Your task to perform on an android device: toggle notification dots Image 0: 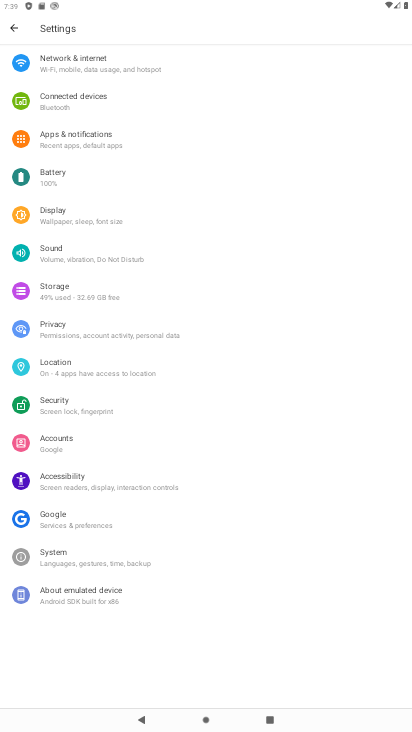
Step 0: click (79, 138)
Your task to perform on an android device: toggle notification dots Image 1: 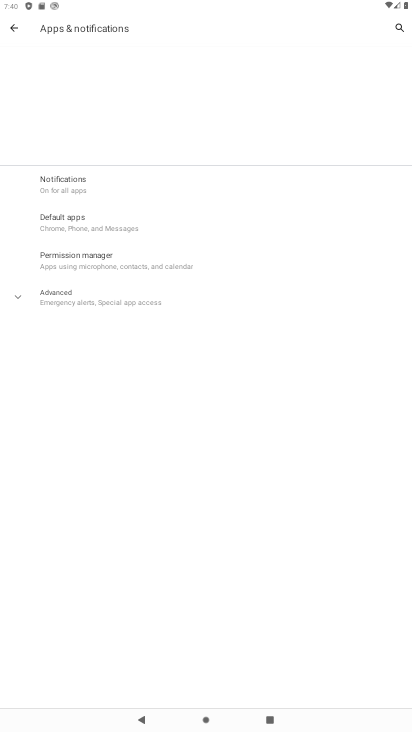
Step 1: click (68, 183)
Your task to perform on an android device: toggle notification dots Image 2: 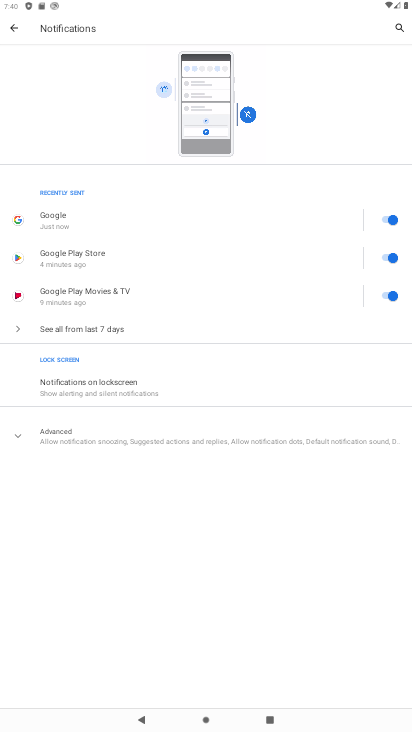
Step 2: click (134, 447)
Your task to perform on an android device: toggle notification dots Image 3: 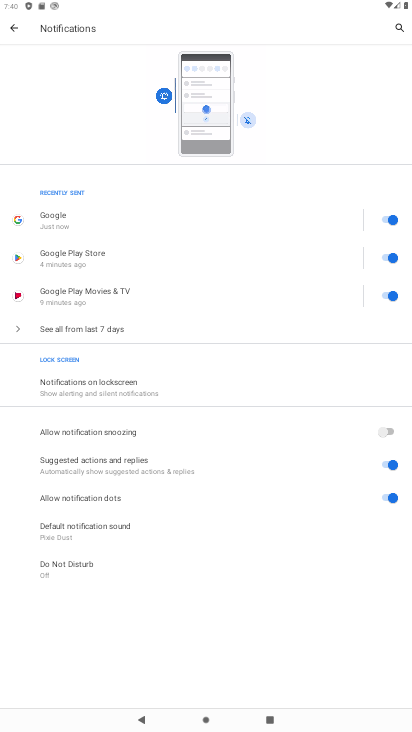
Step 3: click (399, 500)
Your task to perform on an android device: toggle notification dots Image 4: 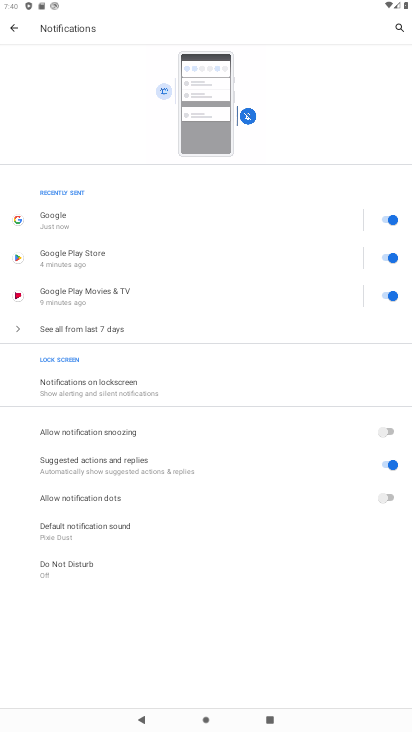
Step 4: task complete